Your task to perform on an android device: Search for seafood restaurants on Google Maps Image 0: 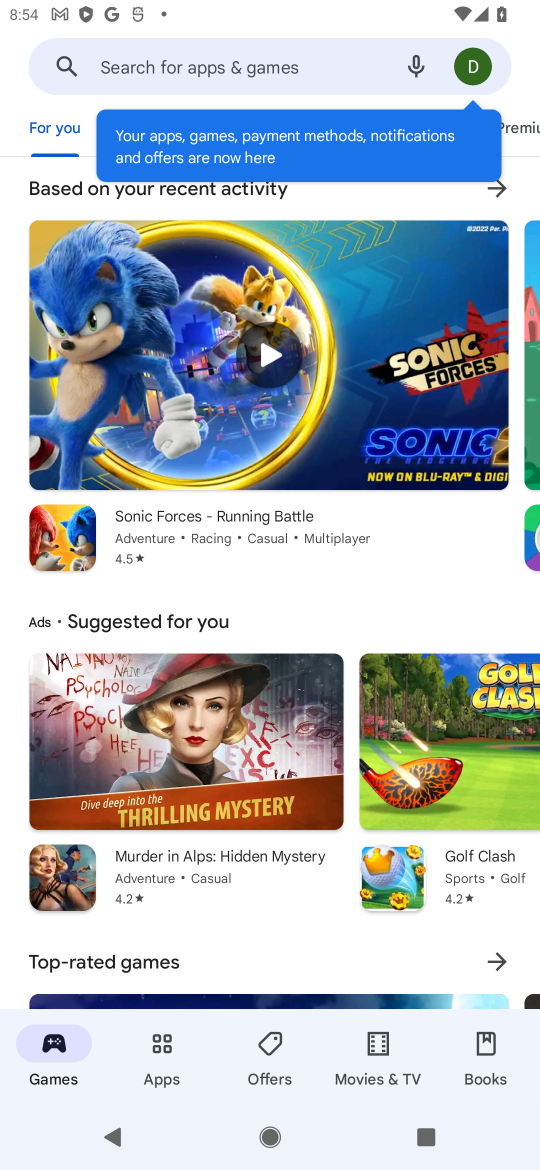
Step 0: press back button
Your task to perform on an android device: Search for seafood restaurants on Google Maps Image 1: 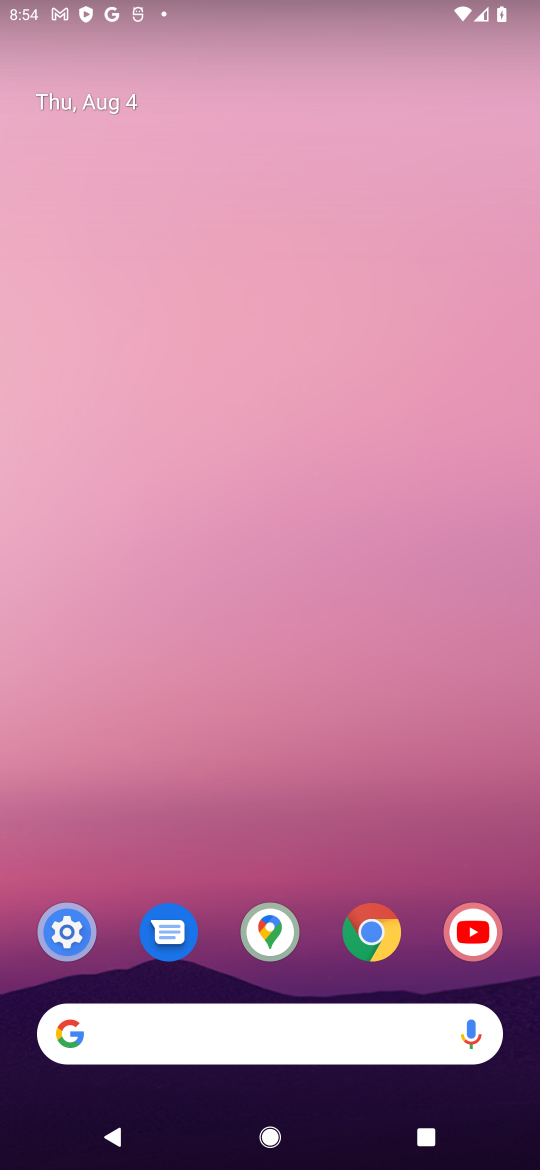
Step 1: click (270, 949)
Your task to perform on an android device: Search for seafood restaurants on Google Maps Image 2: 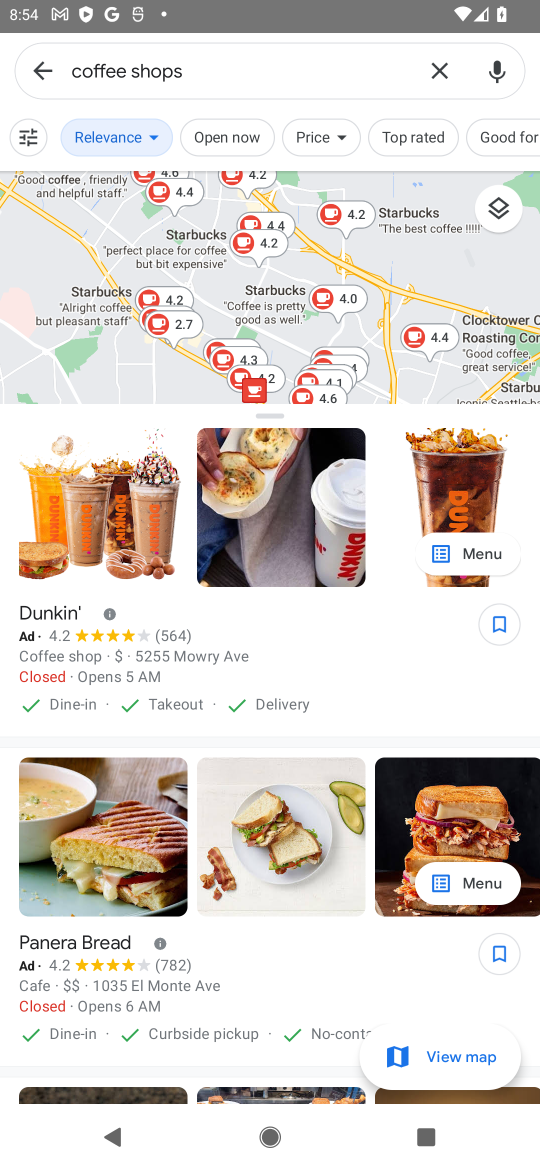
Step 2: click (446, 65)
Your task to perform on an android device: Search for seafood restaurants on Google Maps Image 3: 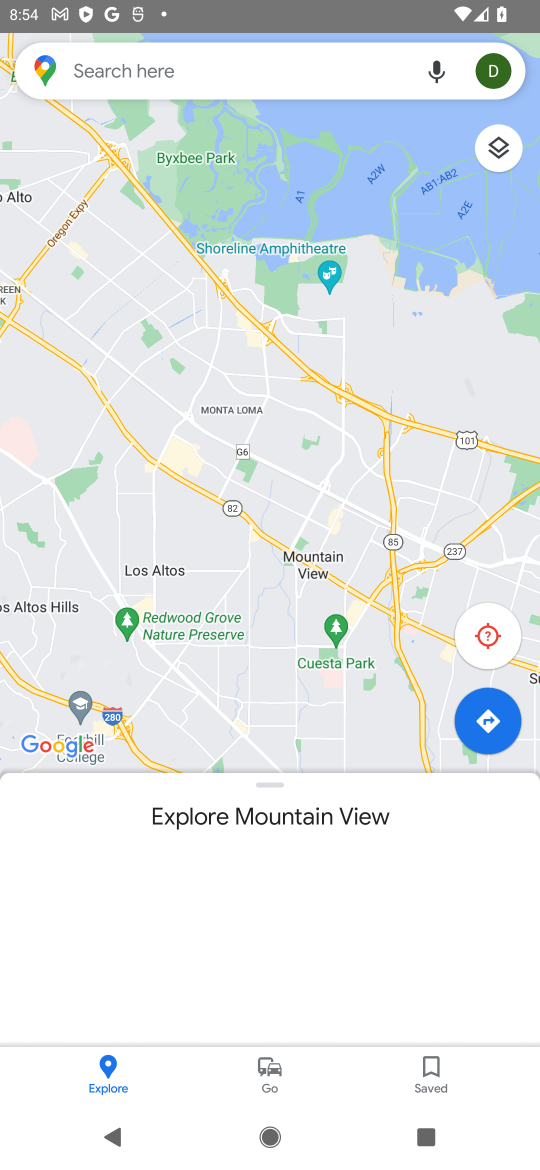
Step 3: click (236, 81)
Your task to perform on an android device: Search for seafood restaurants on Google Maps Image 4: 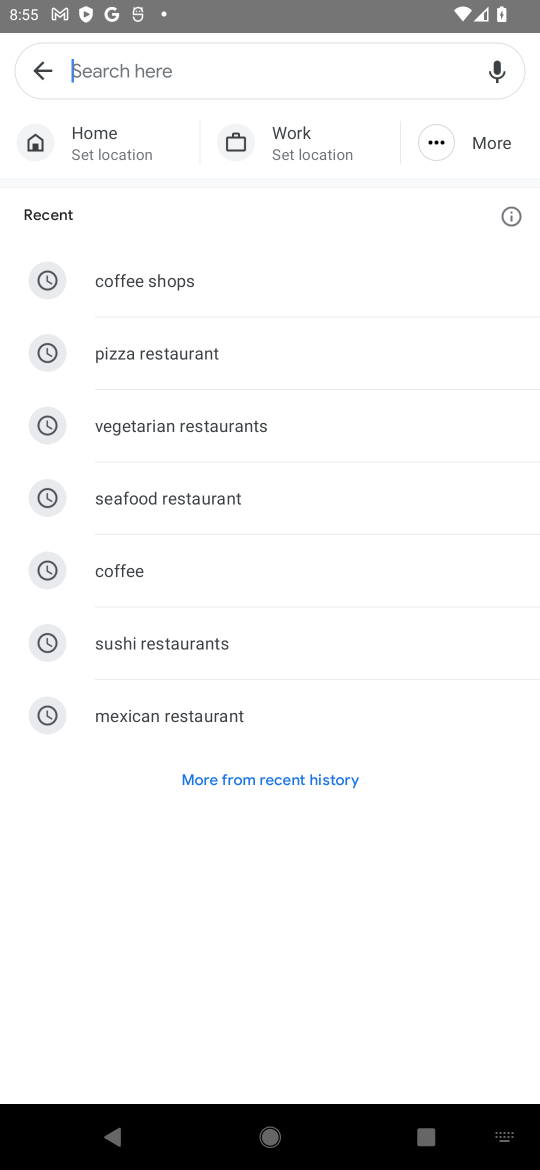
Step 4: type "seafood restaurants"
Your task to perform on an android device: Search for seafood restaurants on Google Maps Image 5: 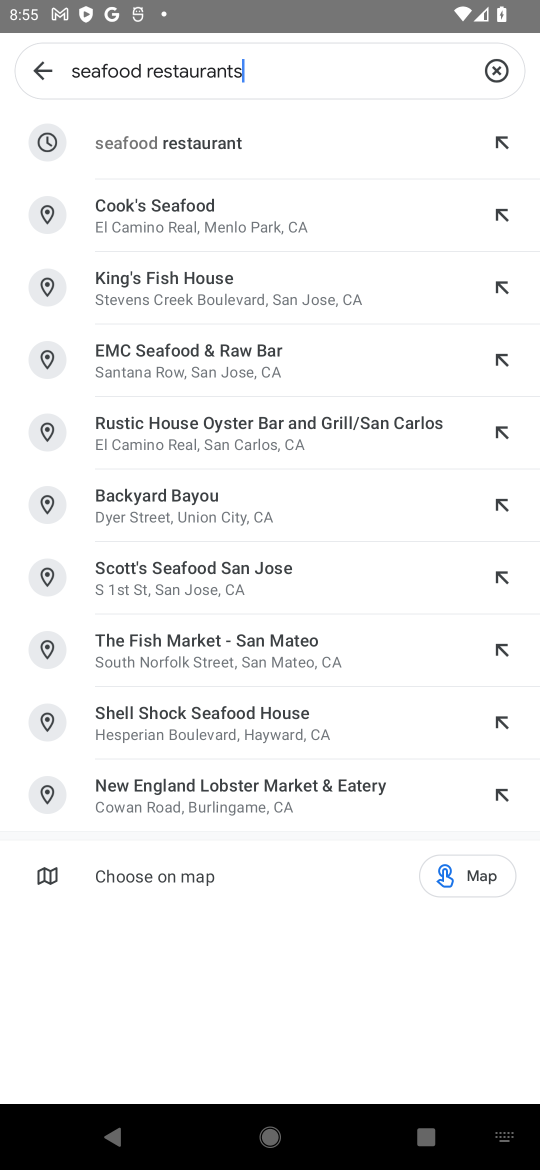
Step 5: click (175, 144)
Your task to perform on an android device: Search for seafood restaurants on Google Maps Image 6: 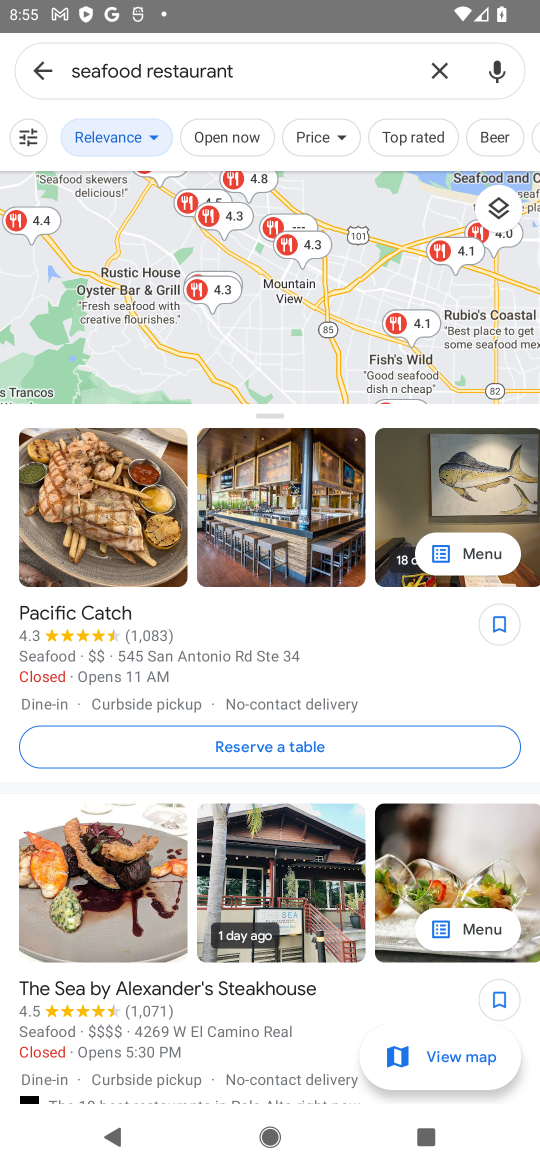
Step 6: task complete